Your task to perform on an android device: Open Reddit.com Image 0: 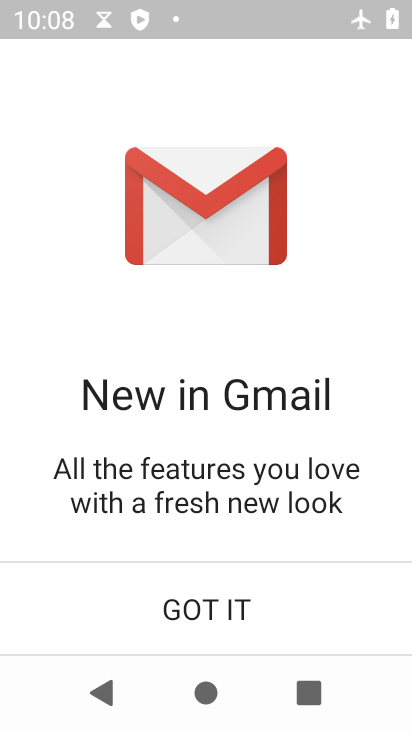
Step 0: press back button
Your task to perform on an android device: Open Reddit.com Image 1: 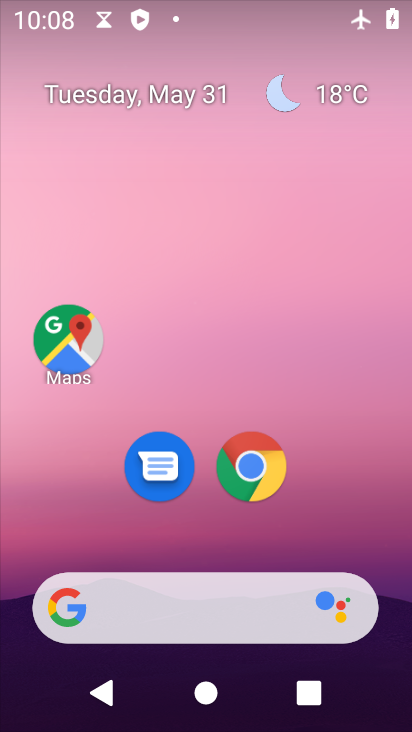
Step 1: drag from (362, 506) to (231, 15)
Your task to perform on an android device: Open Reddit.com Image 2: 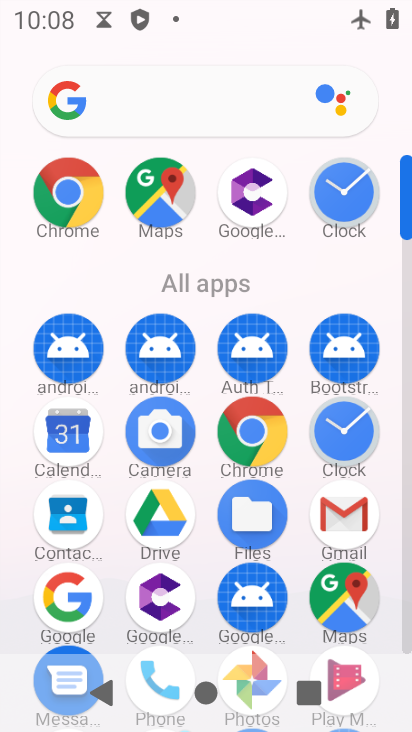
Step 2: drag from (10, 529) to (22, 231)
Your task to perform on an android device: Open Reddit.com Image 3: 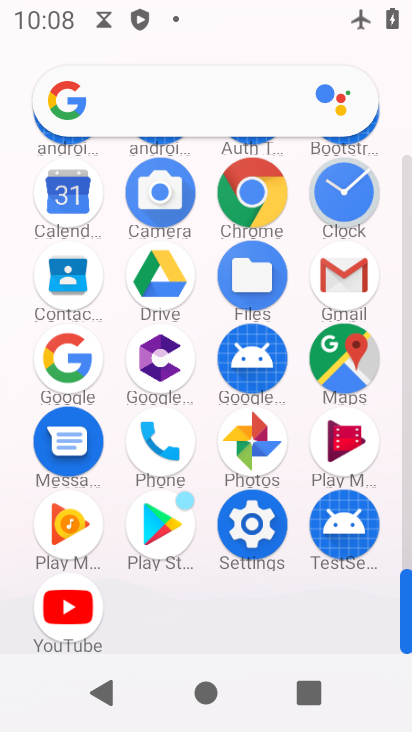
Step 3: click (257, 187)
Your task to perform on an android device: Open Reddit.com Image 4: 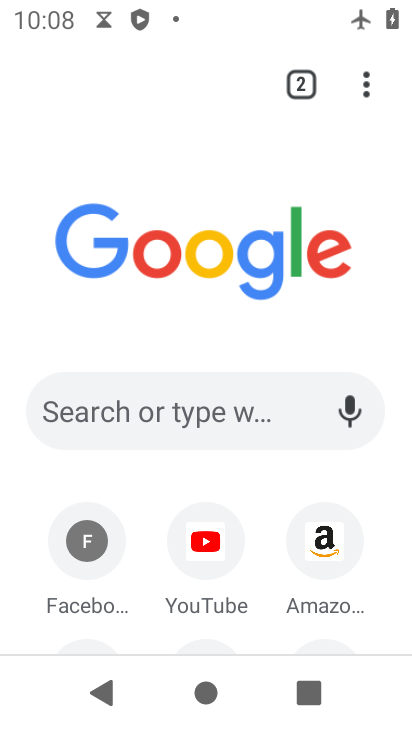
Step 4: click (178, 410)
Your task to perform on an android device: Open Reddit.com Image 5: 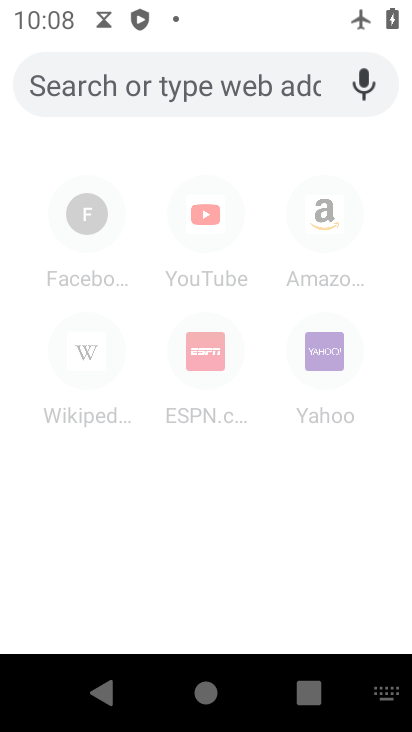
Step 5: click (222, 95)
Your task to perform on an android device: Open Reddit.com Image 6: 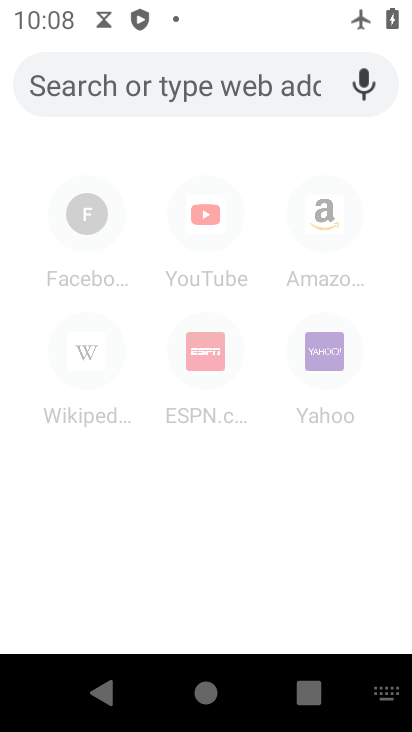
Step 6: type "Reddit.com"
Your task to perform on an android device: Open Reddit.com Image 7: 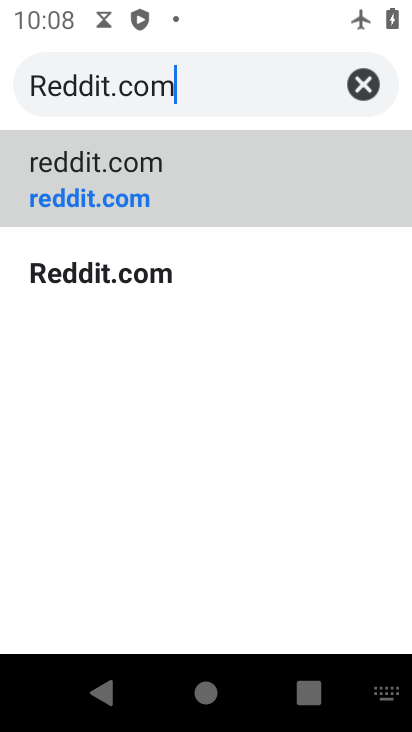
Step 7: type ""
Your task to perform on an android device: Open Reddit.com Image 8: 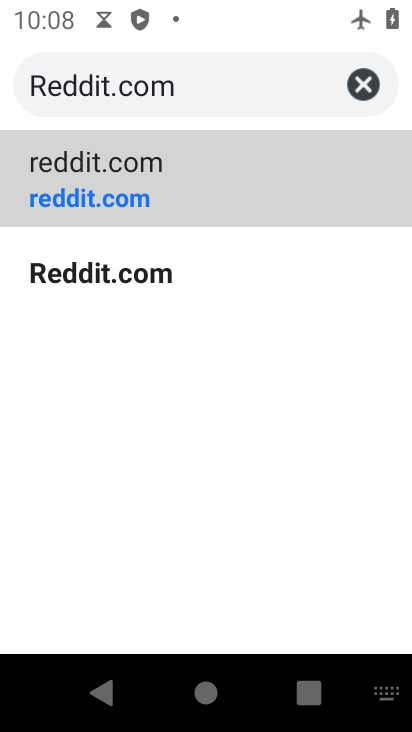
Step 8: click (153, 181)
Your task to perform on an android device: Open Reddit.com Image 9: 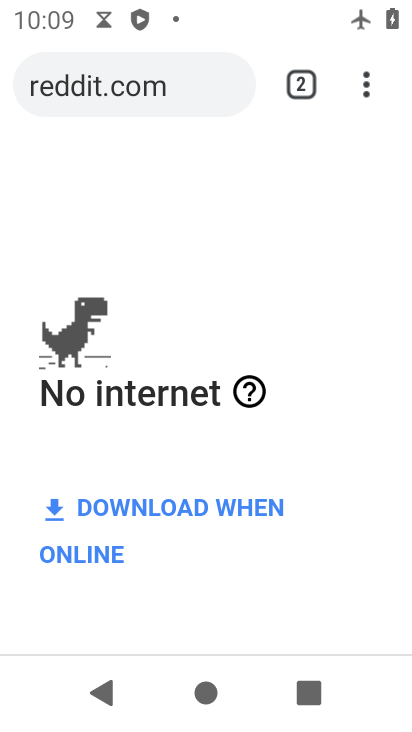
Step 9: task complete